Your task to perform on an android device: Is it going to rain tomorrow? Image 0: 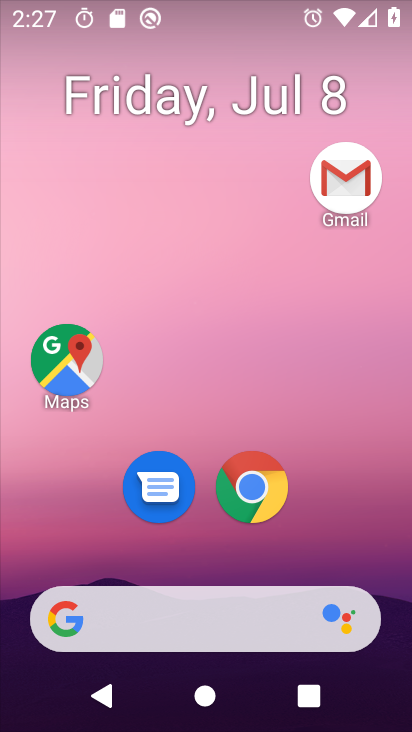
Step 0: drag from (374, 534) to (340, 143)
Your task to perform on an android device: Is it going to rain tomorrow? Image 1: 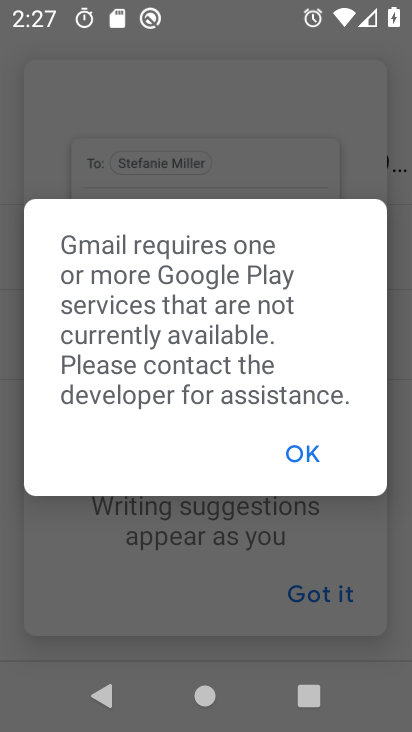
Step 1: press back button
Your task to perform on an android device: Is it going to rain tomorrow? Image 2: 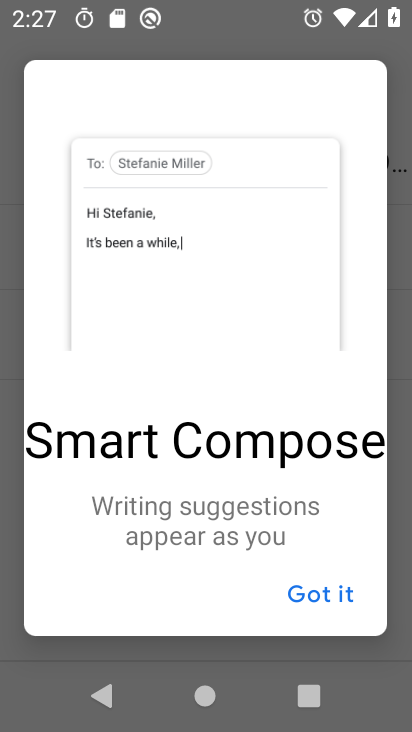
Step 2: press home button
Your task to perform on an android device: Is it going to rain tomorrow? Image 3: 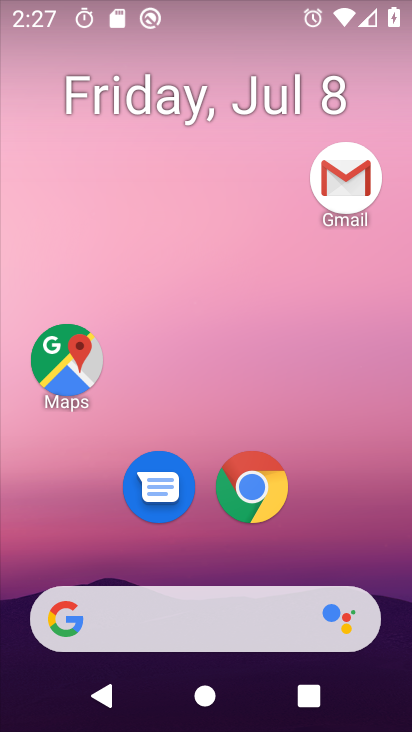
Step 3: click (253, 609)
Your task to perform on an android device: Is it going to rain tomorrow? Image 4: 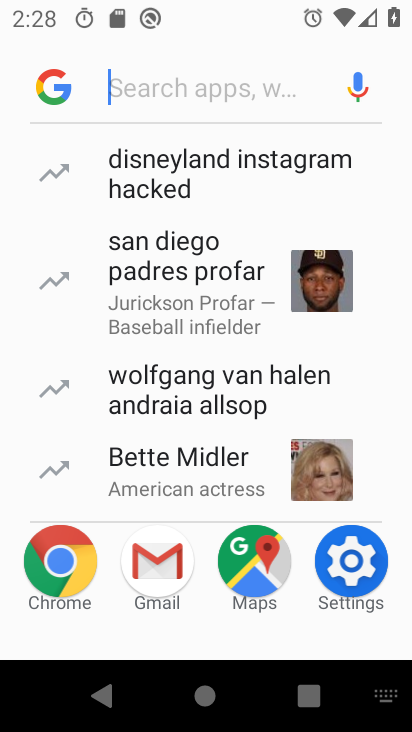
Step 4: type "weather"
Your task to perform on an android device: Is it going to rain tomorrow? Image 5: 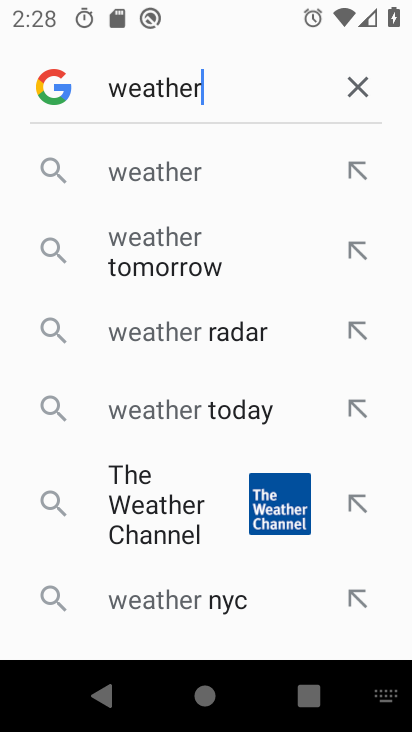
Step 5: click (212, 177)
Your task to perform on an android device: Is it going to rain tomorrow? Image 6: 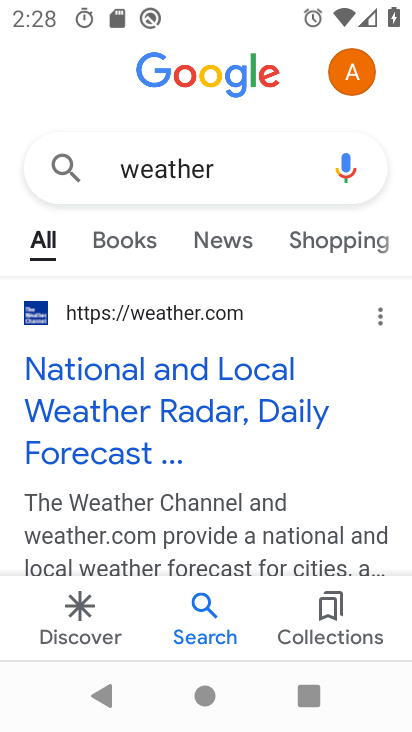
Step 6: task complete